Your task to perform on an android device: check out phone information Image 0: 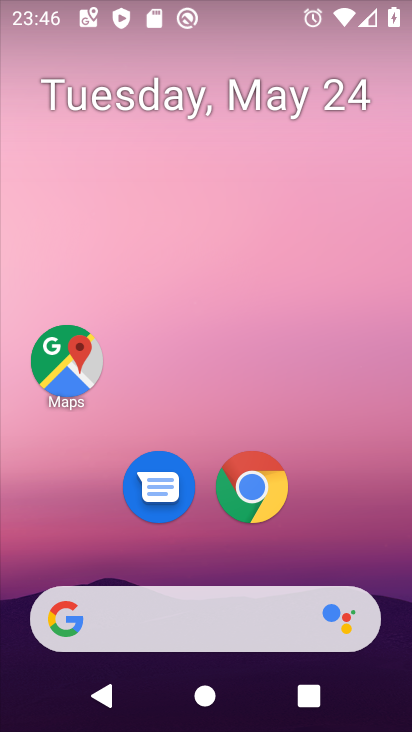
Step 0: drag from (194, 571) to (278, 111)
Your task to perform on an android device: check out phone information Image 1: 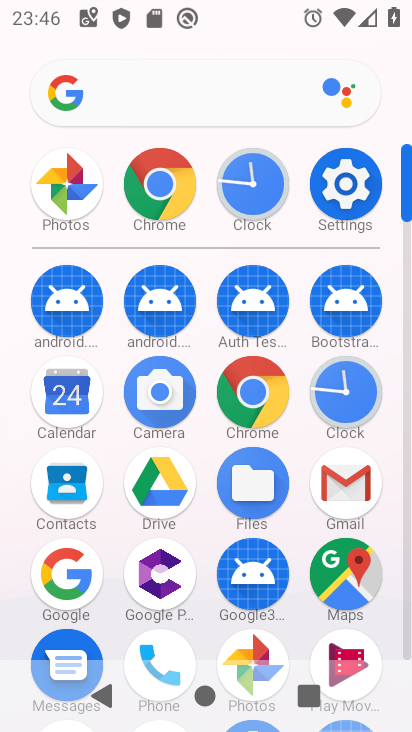
Step 1: click (346, 187)
Your task to perform on an android device: check out phone information Image 2: 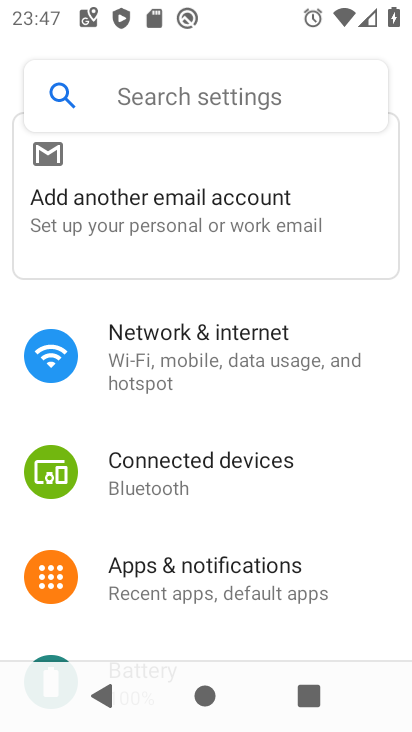
Step 2: drag from (185, 562) to (271, 83)
Your task to perform on an android device: check out phone information Image 3: 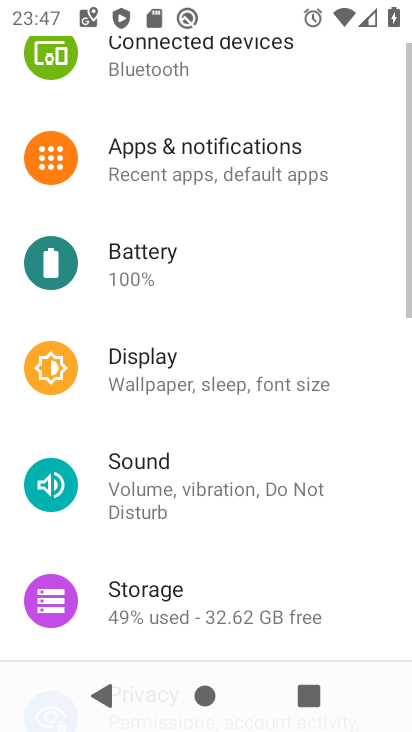
Step 3: drag from (192, 473) to (254, 12)
Your task to perform on an android device: check out phone information Image 4: 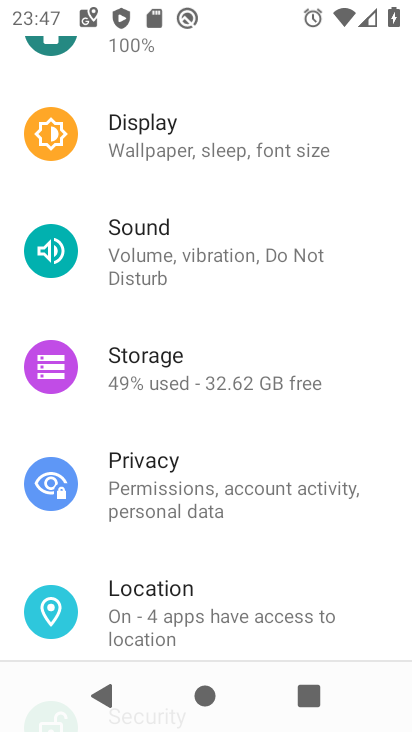
Step 4: drag from (192, 600) to (289, 20)
Your task to perform on an android device: check out phone information Image 5: 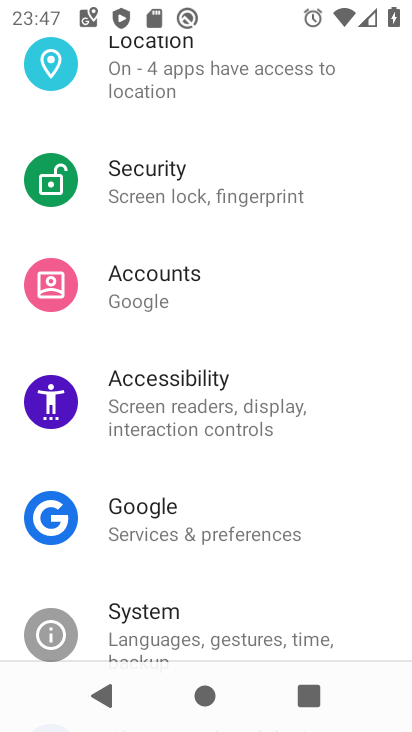
Step 5: drag from (211, 534) to (288, 10)
Your task to perform on an android device: check out phone information Image 6: 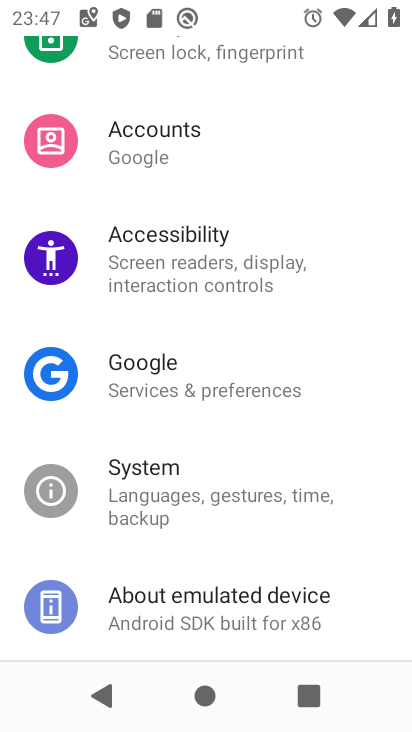
Step 6: click (175, 606)
Your task to perform on an android device: check out phone information Image 7: 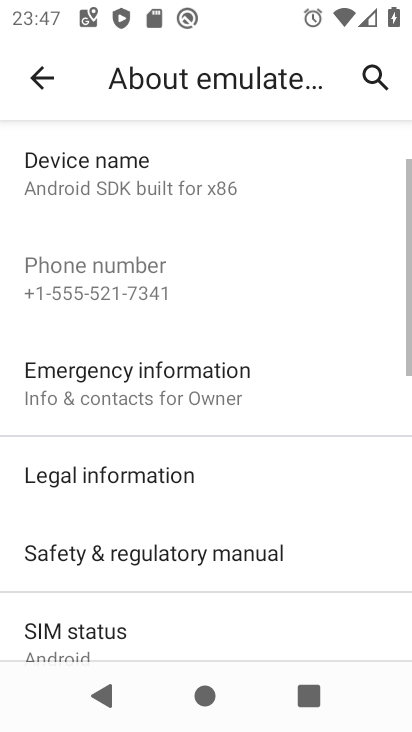
Step 7: task complete